Your task to perform on an android device: visit the assistant section in the google photos Image 0: 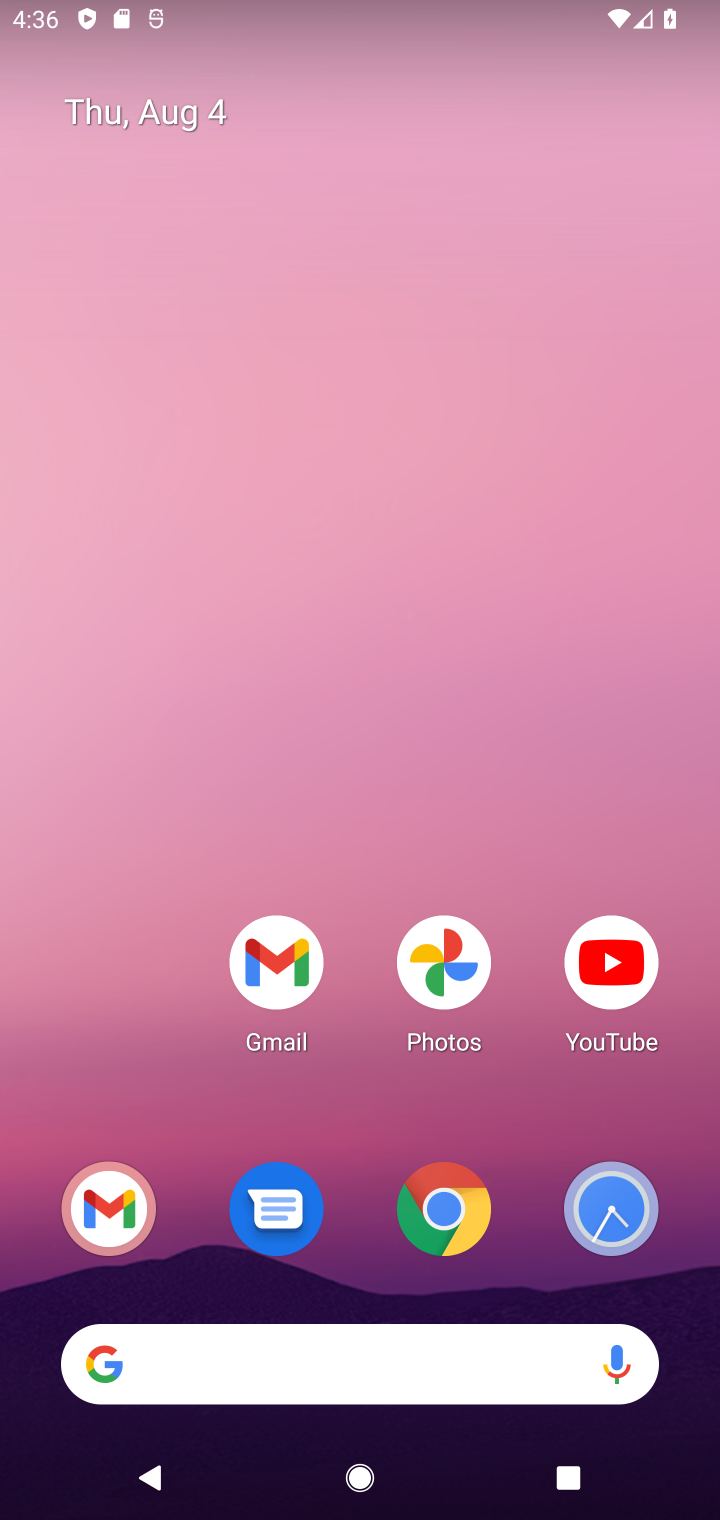
Step 0: click (448, 986)
Your task to perform on an android device: visit the assistant section in the google photos Image 1: 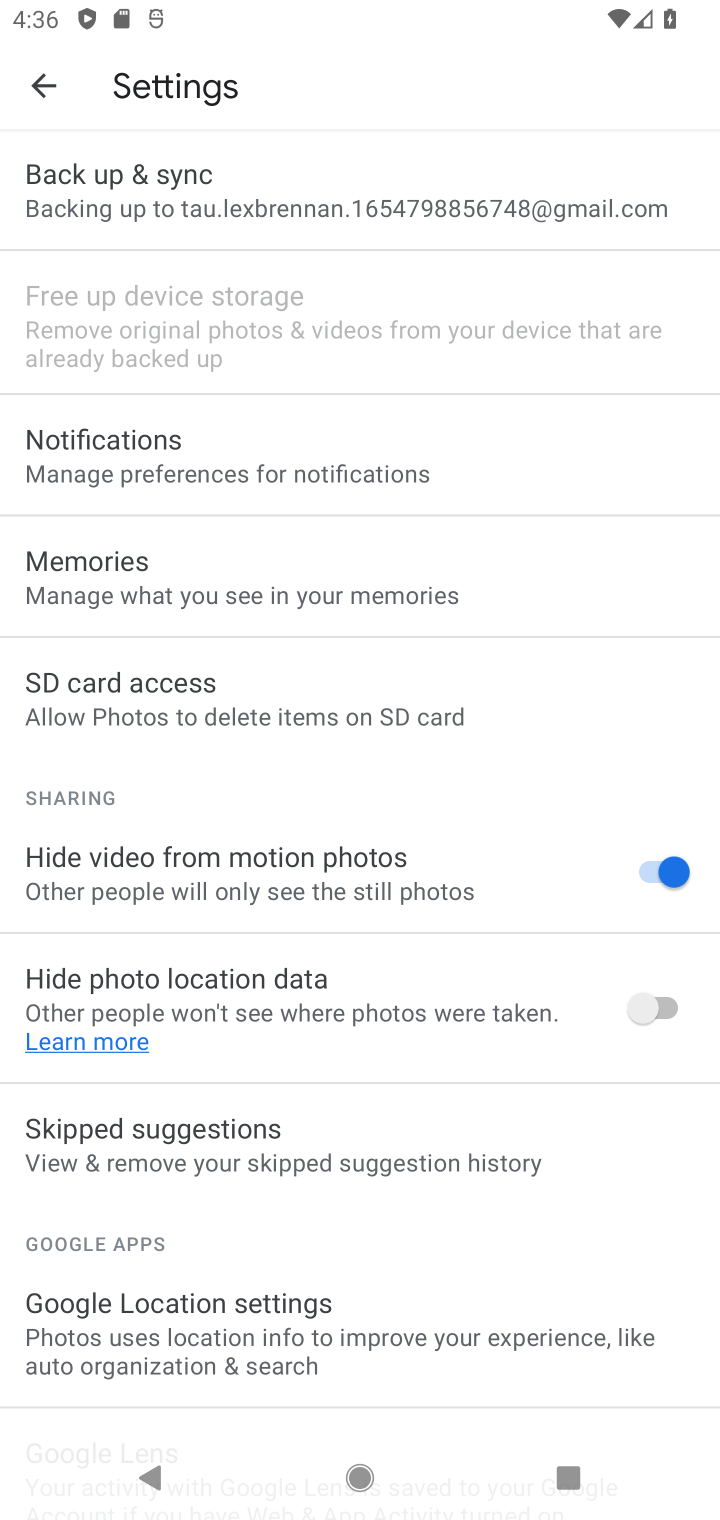
Step 1: click (54, 92)
Your task to perform on an android device: visit the assistant section in the google photos Image 2: 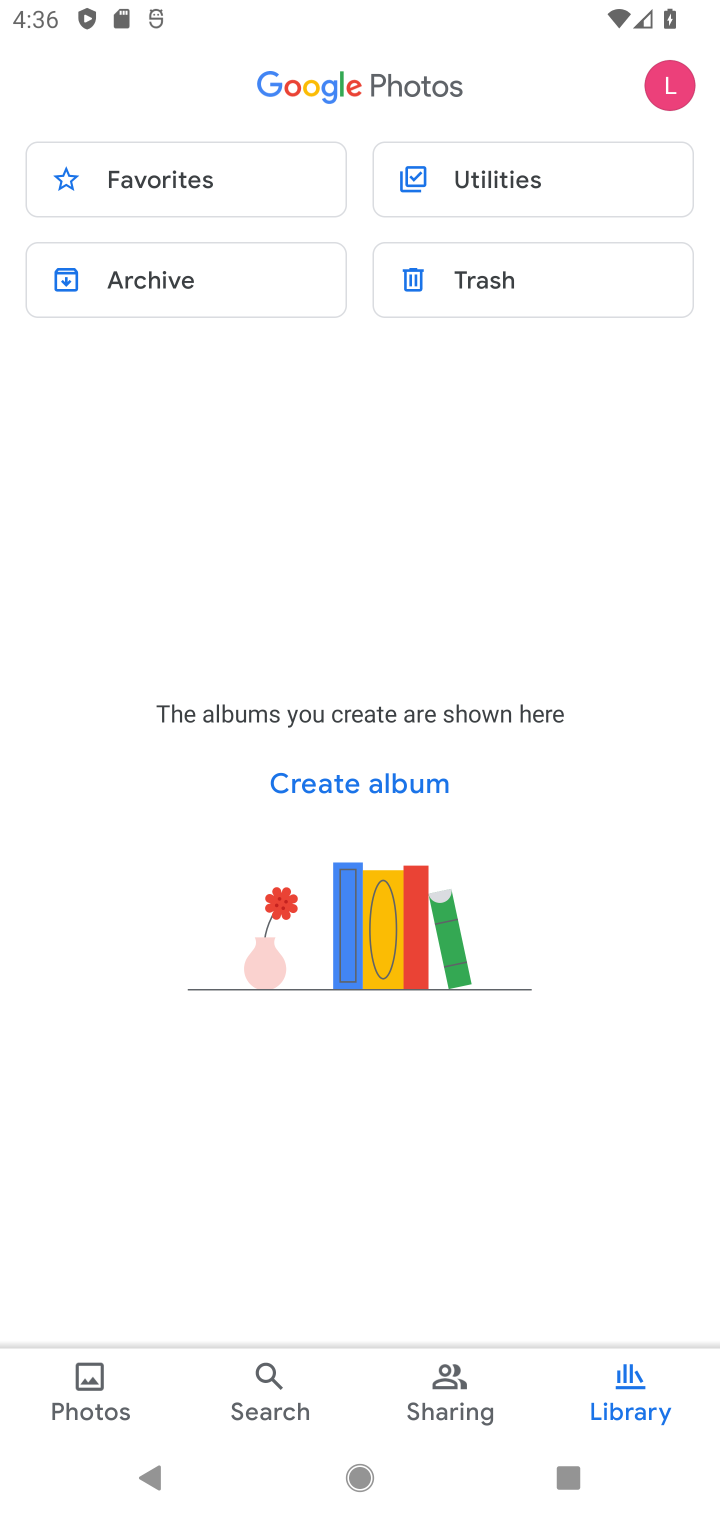
Step 2: task complete